Your task to perform on an android device: delete a single message in the gmail app Image 0: 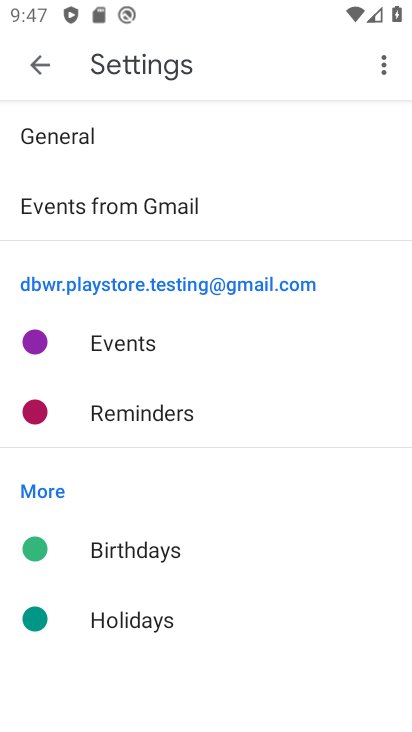
Step 0: press home button
Your task to perform on an android device: delete a single message in the gmail app Image 1: 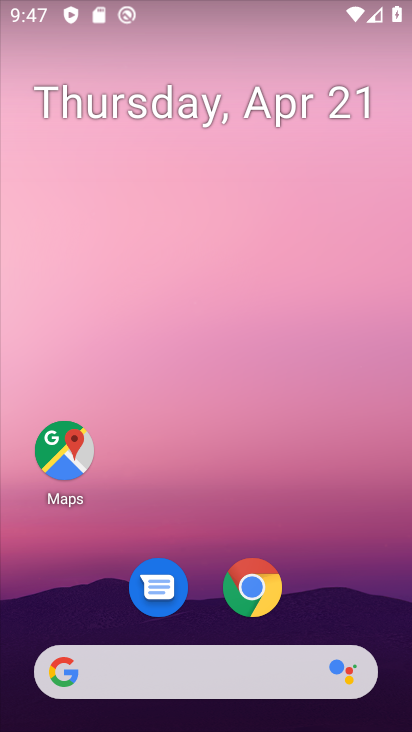
Step 1: drag from (349, 590) to (385, 61)
Your task to perform on an android device: delete a single message in the gmail app Image 2: 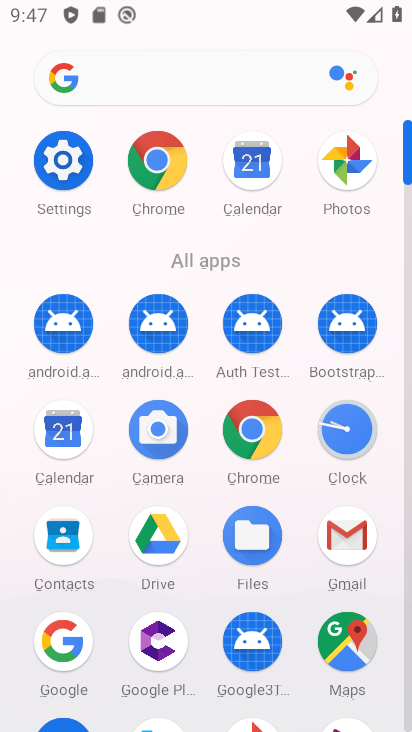
Step 2: click (352, 544)
Your task to perform on an android device: delete a single message in the gmail app Image 3: 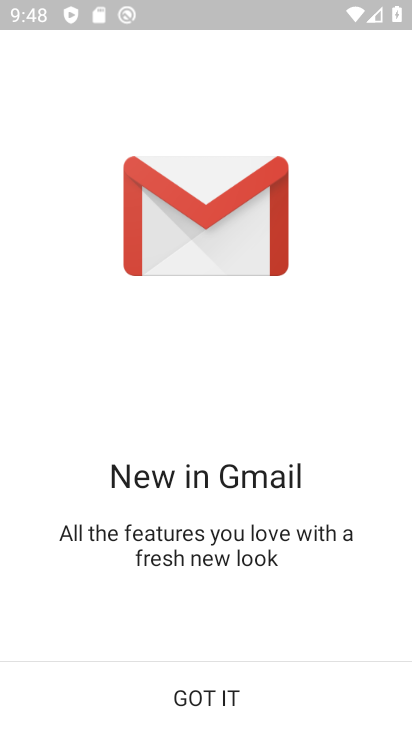
Step 3: click (235, 690)
Your task to perform on an android device: delete a single message in the gmail app Image 4: 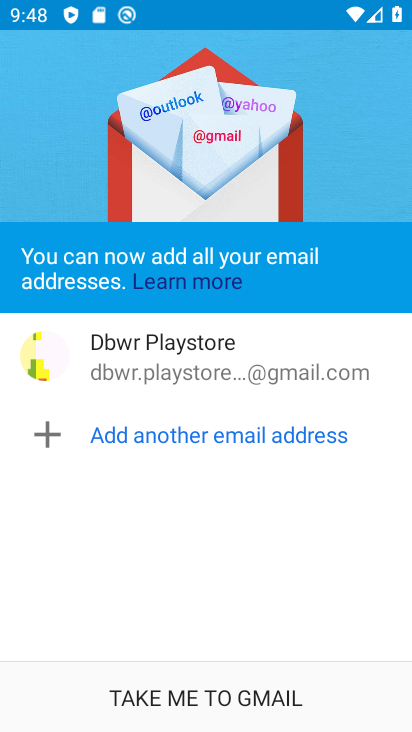
Step 4: click (235, 690)
Your task to perform on an android device: delete a single message in the gmail app Image 5: 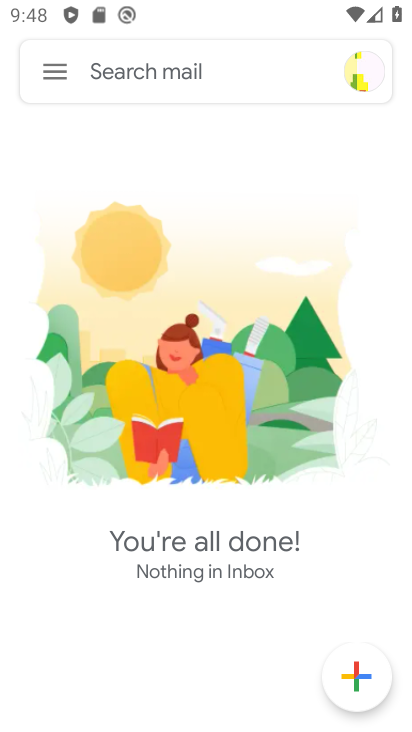
Step 5: task complete